Your task to perform on an android device: turn on airplane mode Image 0: 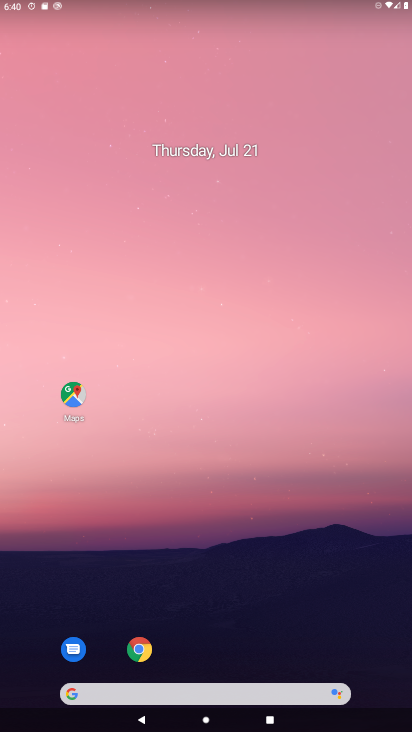
Step 0: drag from (346, 642) to (233, 87)
Your task to perform on an android device: turn on airplane mode Image 1: 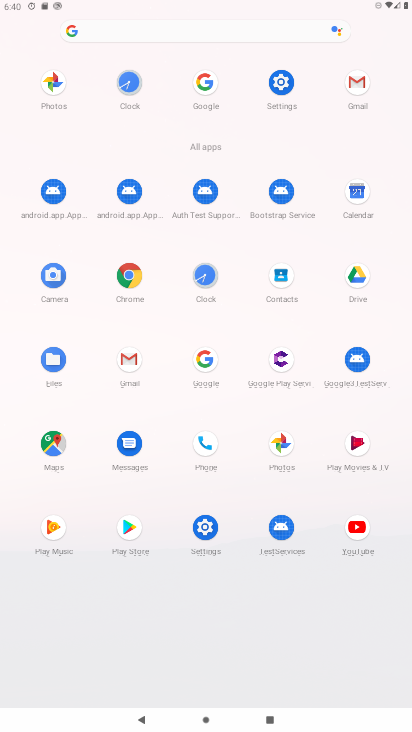
Step 1: drag from (236, 3) to (198, 527)
Your task to perform on an android device: turn on airplane mode Image 2: 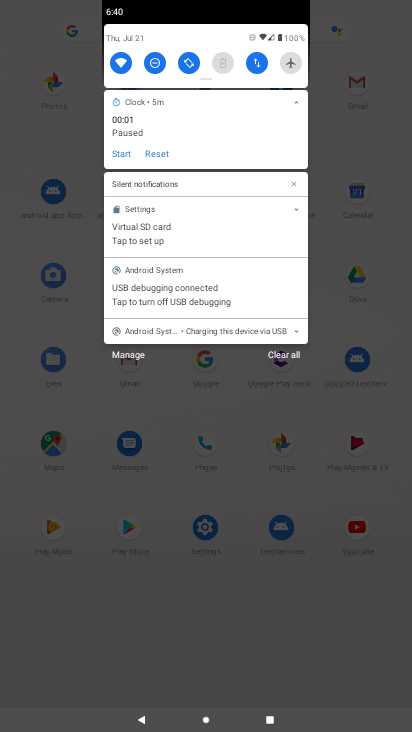
Step 2: click (288, 58)
Your task to perform on an android device: turn on airplane mode Image 3: 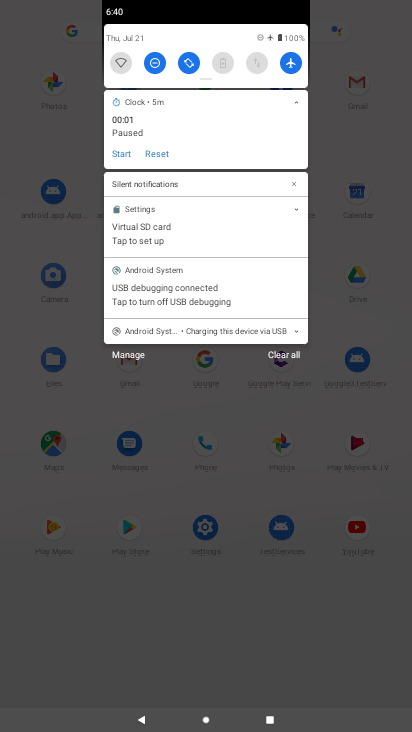
Step 3: task complete